Your task to perform on an android device: Show me productivity apps on the Play Store Image 0: 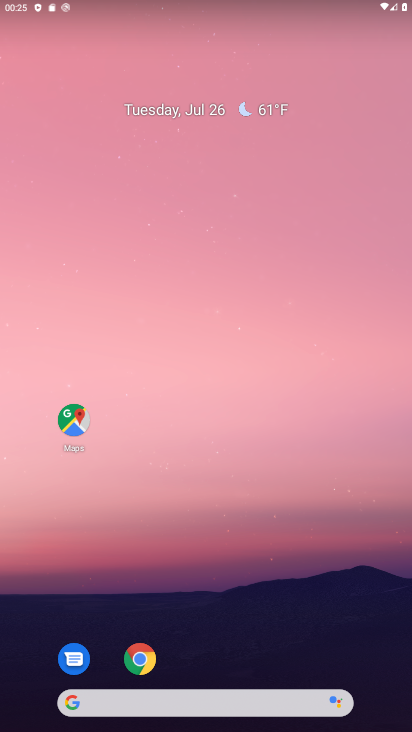
Step 0: drag from (267, 618) to (142, 102)
Your task to perform on an android device: Show me productivity apps on the Play Store Image 1: 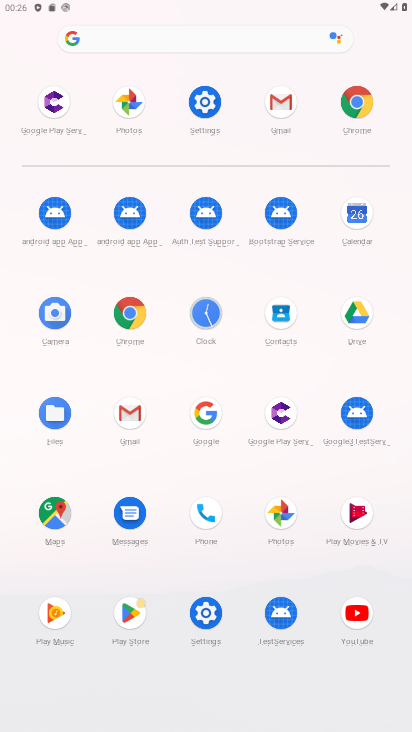
Step 1: click (124, 609)
Your task to perform on an android device: Show me productivity apps on the Play Store Image 2: 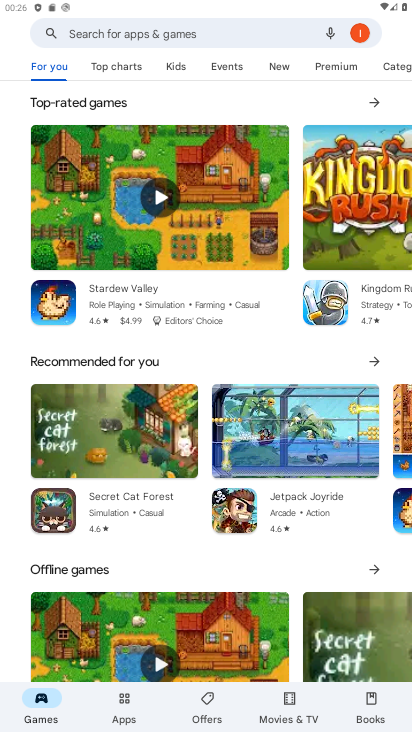
Step 2: click (123, 702)
Your task to perform on an android device: Show me productivity apps on the Play Store Image 3: 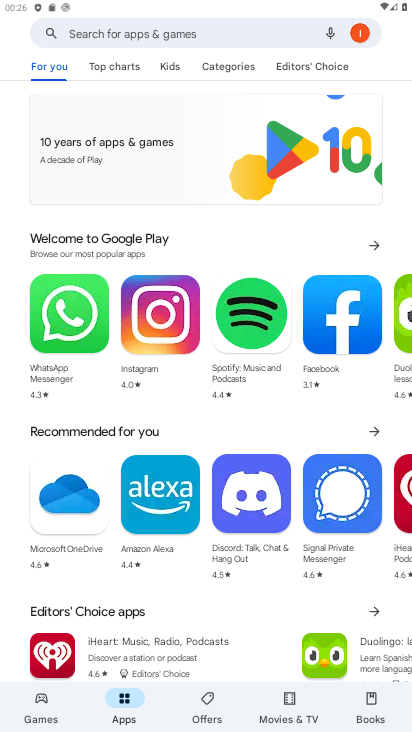
Step 3: task complete